Your task to perform on an android device: Add razer huntsman to the cart on target Image 0: 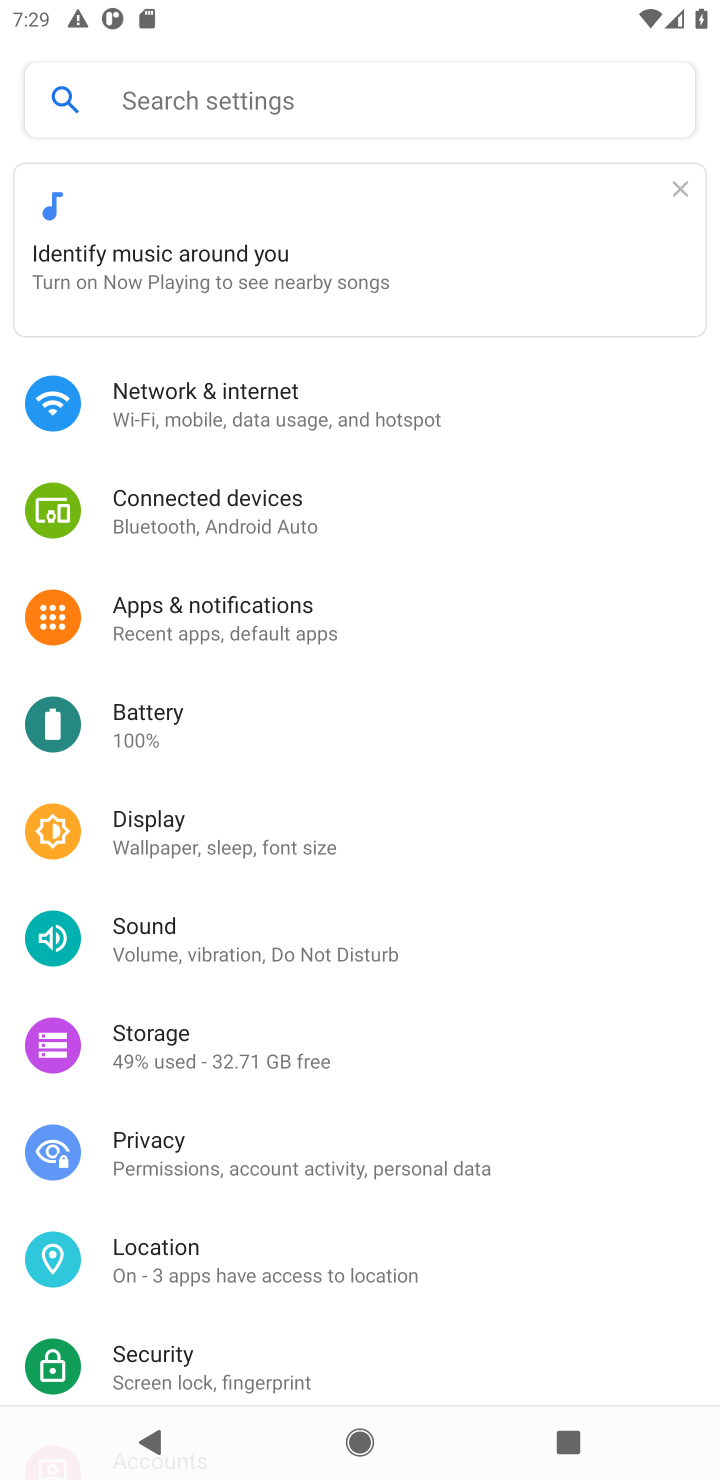
Step 0: press home button
Your task to perform on an android device: Add razer huntsman to the cart on target Image 1: 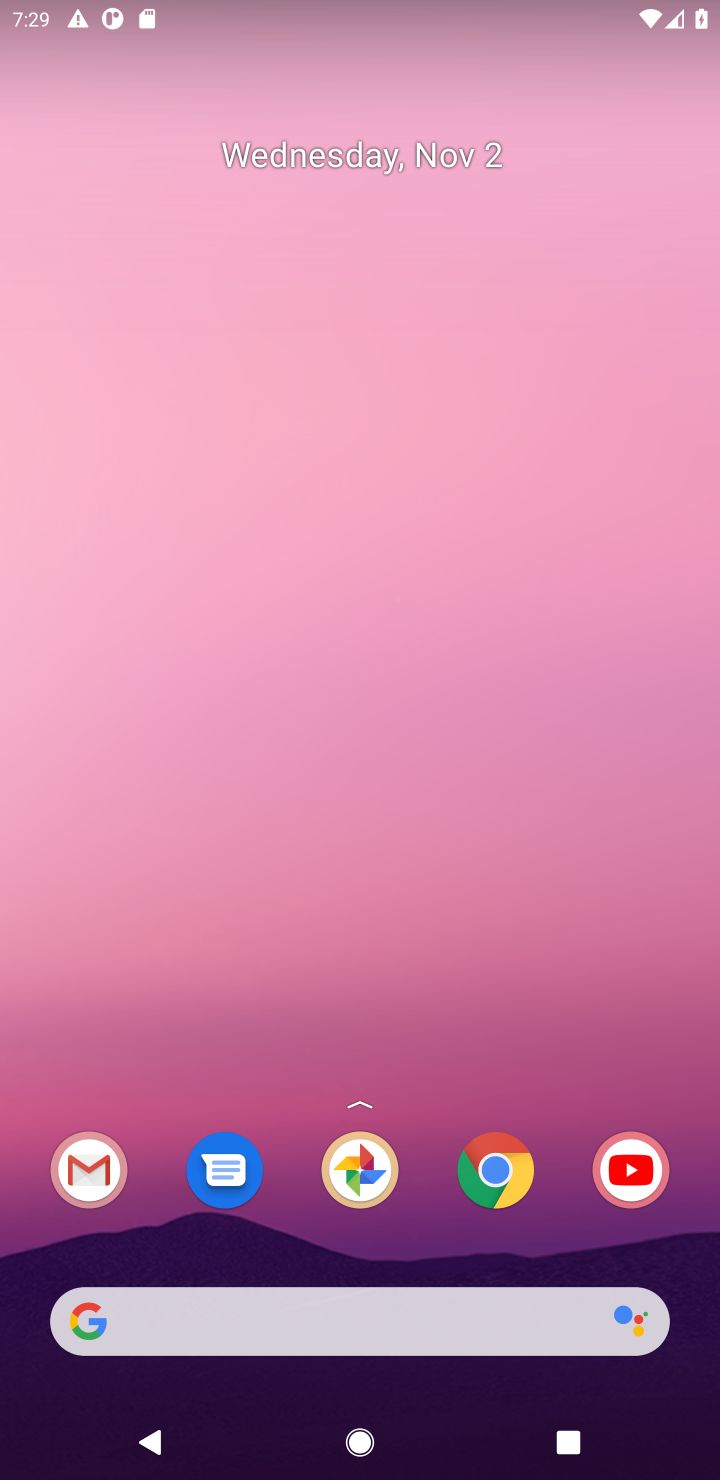
Step 1: click (511, 1194)
Your task to perform on an android device: Add razer huntsman to the cart on target Image 2: 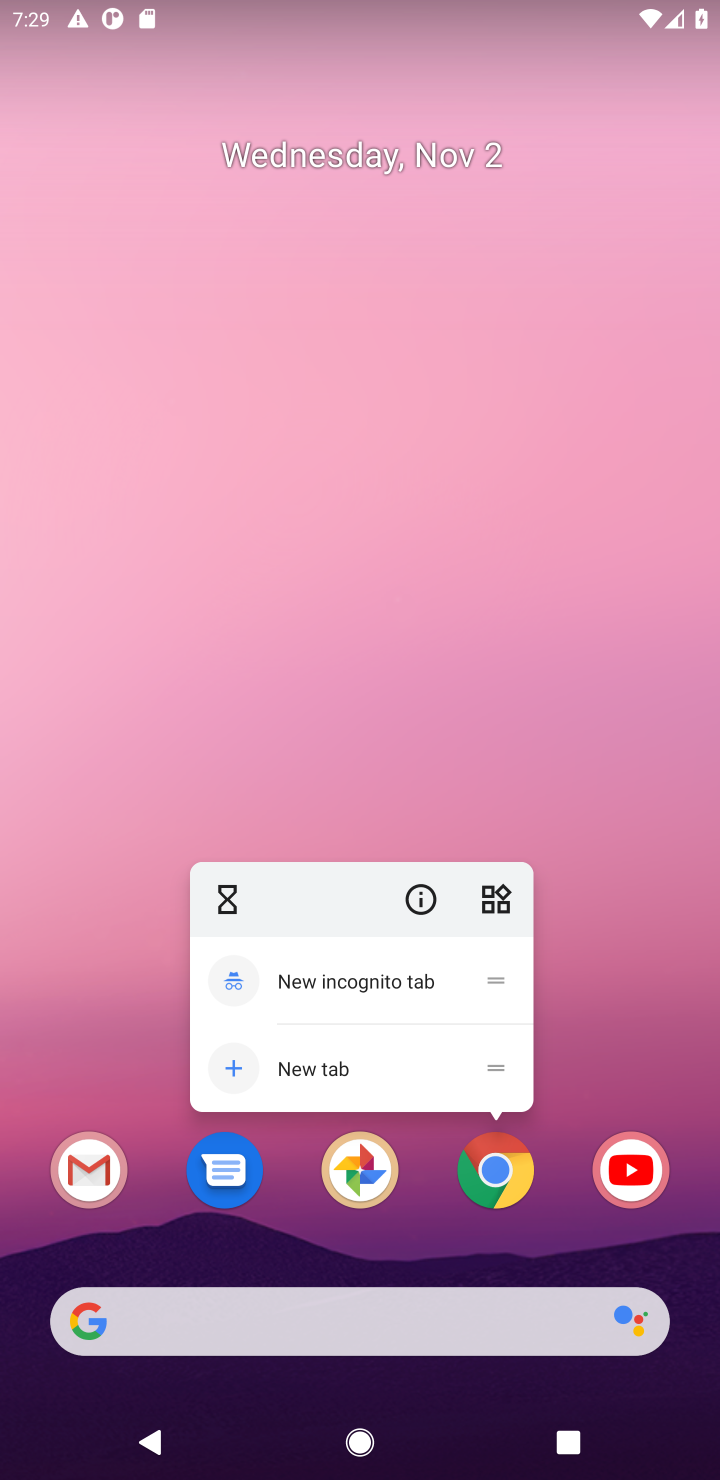
Step 2: click (522, 1186)
Your task to perform on an android device: Add razer huntsman to the cart on target Image 3: 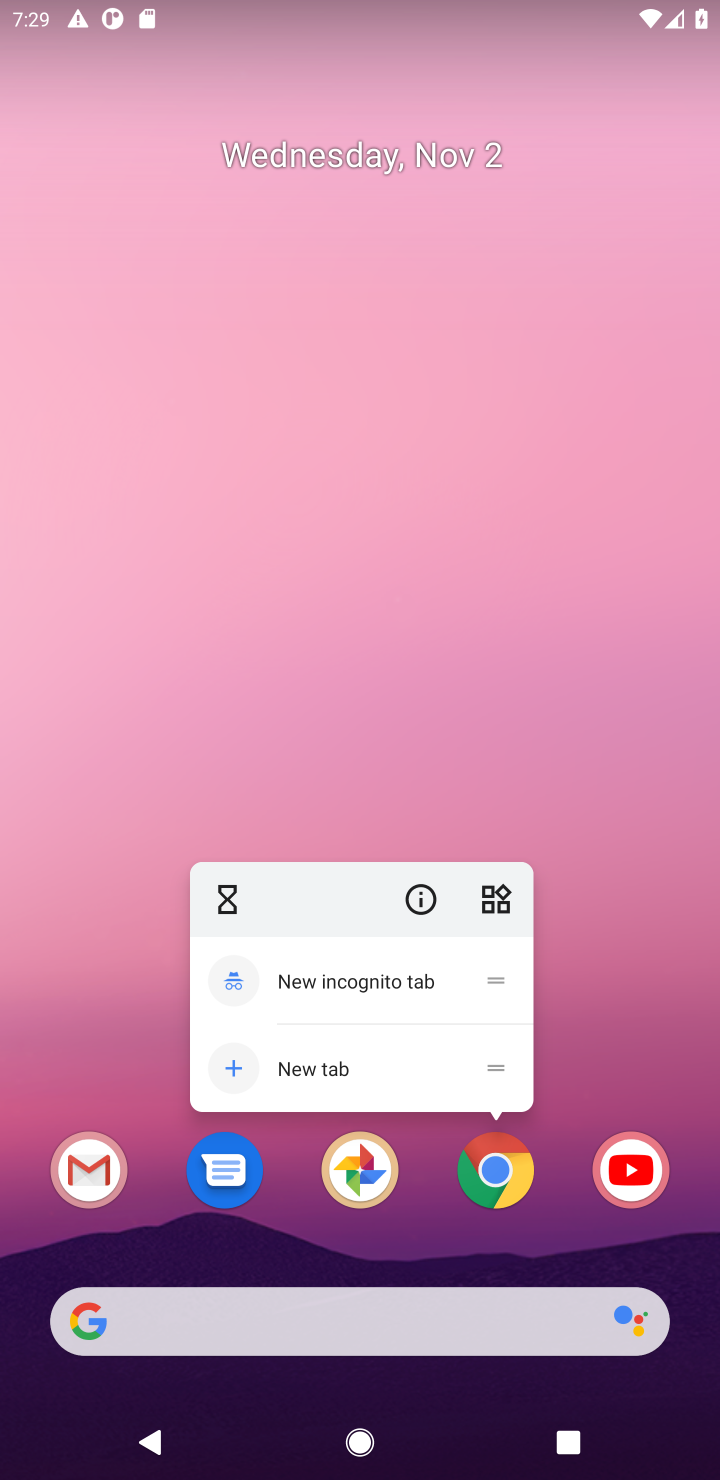
Step 3: click (492, 1163)
Your task to perform on an android device: Add razer huntsman to the cart on target Image 4: 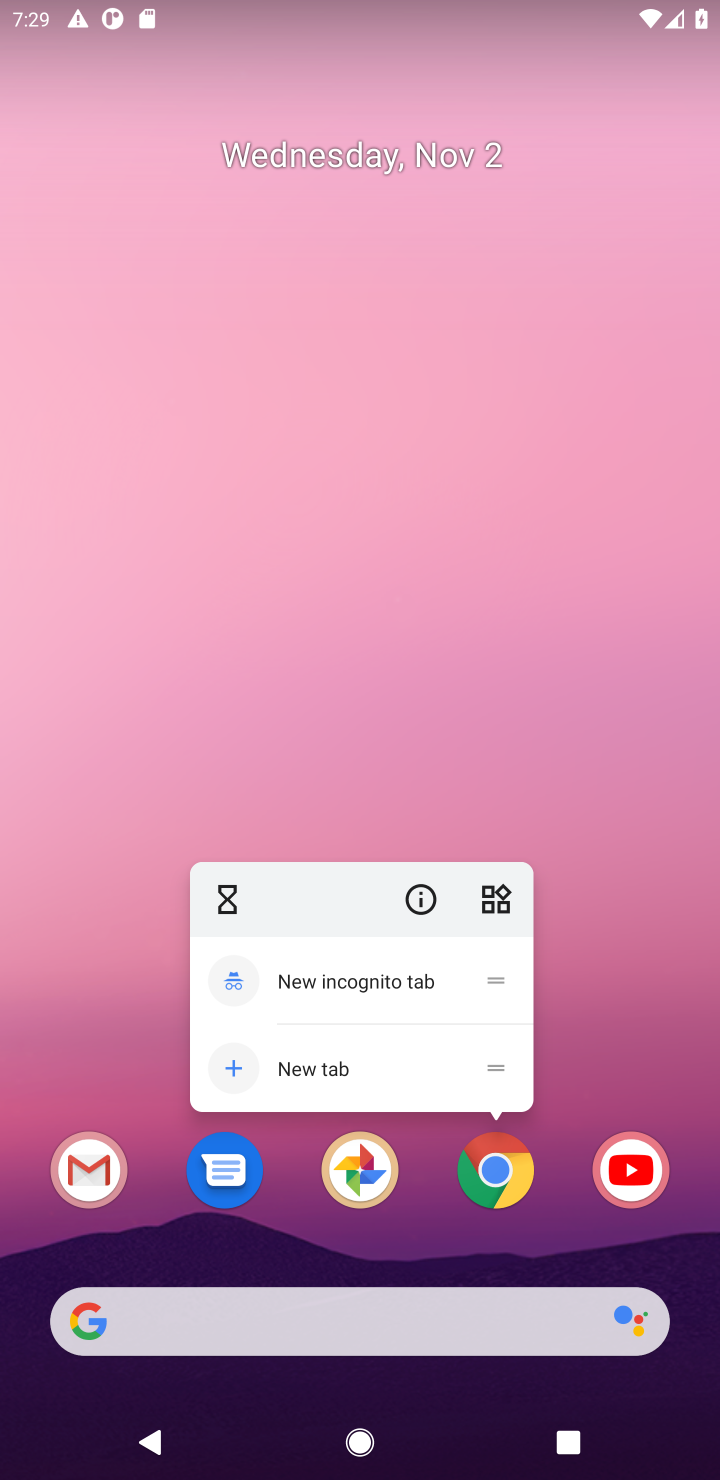
Step 4: click (476, 1198)
Your task to perform on an android device: Add razer huntsman to the cart on target Image 5: 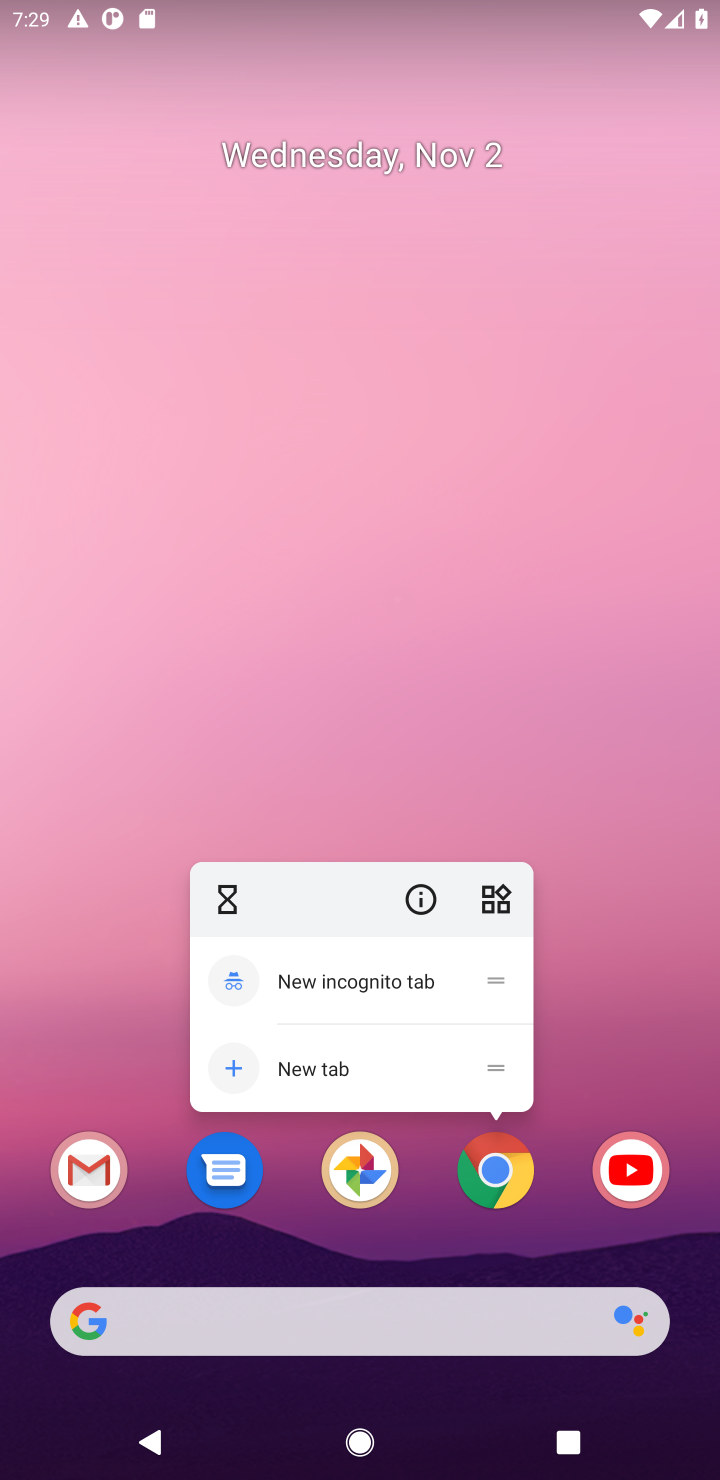
Step 5: click (528, 1176)
Your task to perform on an android device: Add razer huntsman to the cart on target Image 6: 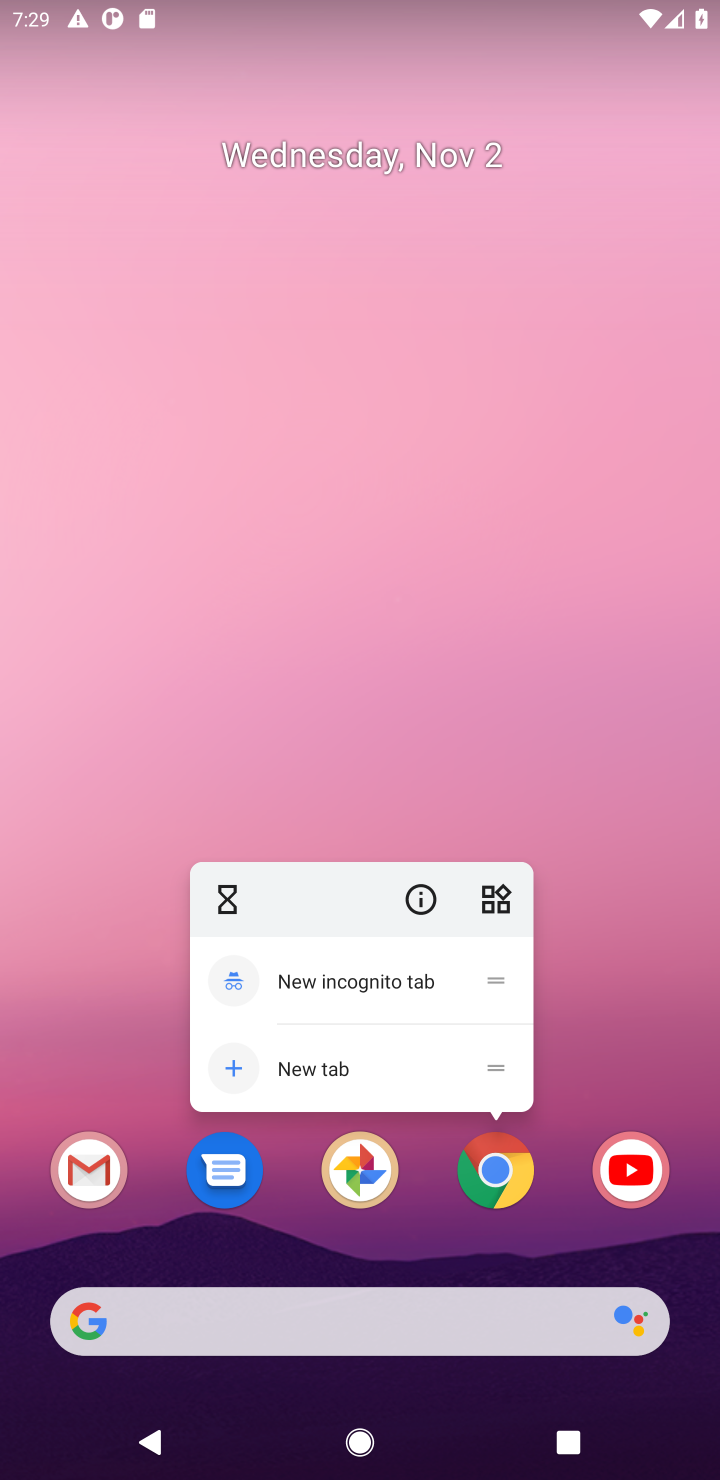
Step 6: click (495, 1206)
Your task to perform on an android device: Add razer huntsman to the cart on target Image 7: 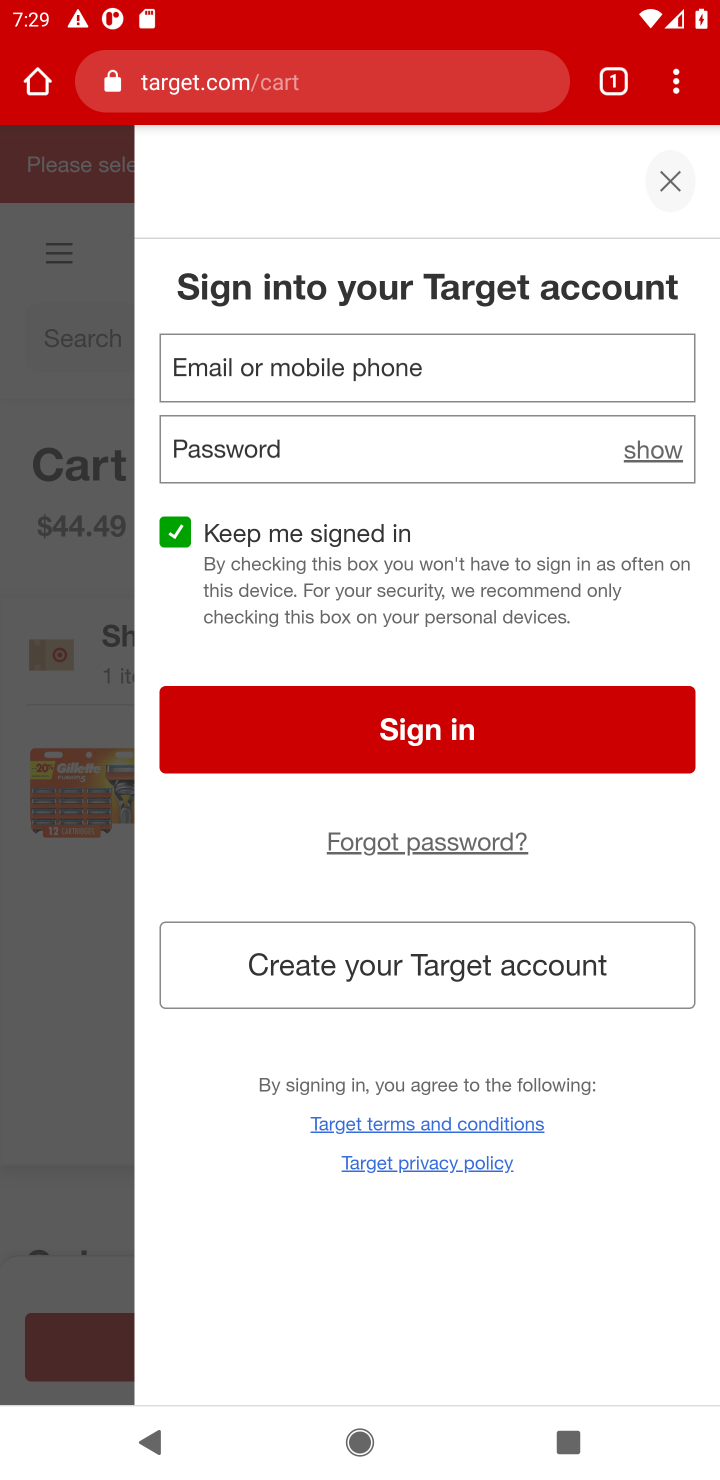
Step 7: click (316, 73)
Your task to perform on an android device: Add razer huntsman to the cart on target Image 8: 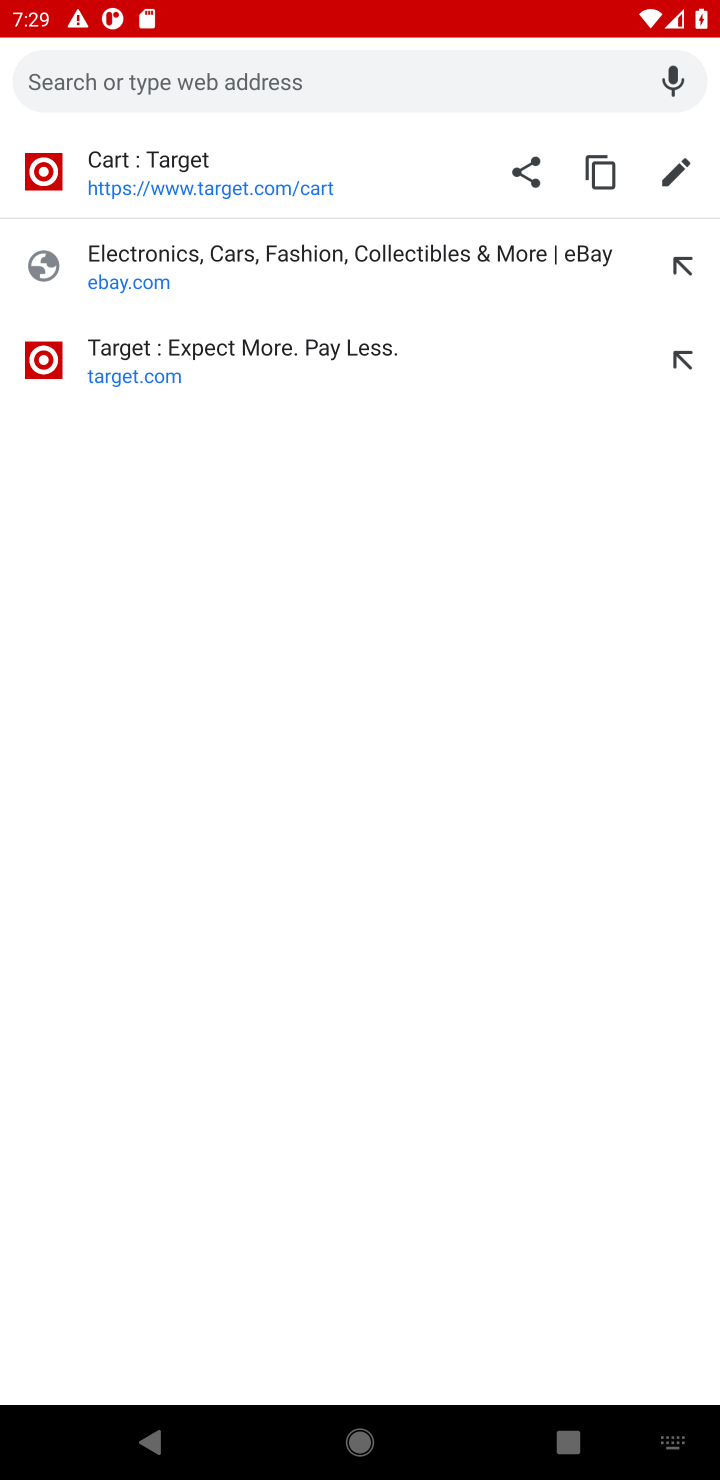
Step 8: type "target"
Your task to perform on an android device: Add razer huntsman to the cart on target Image 9: 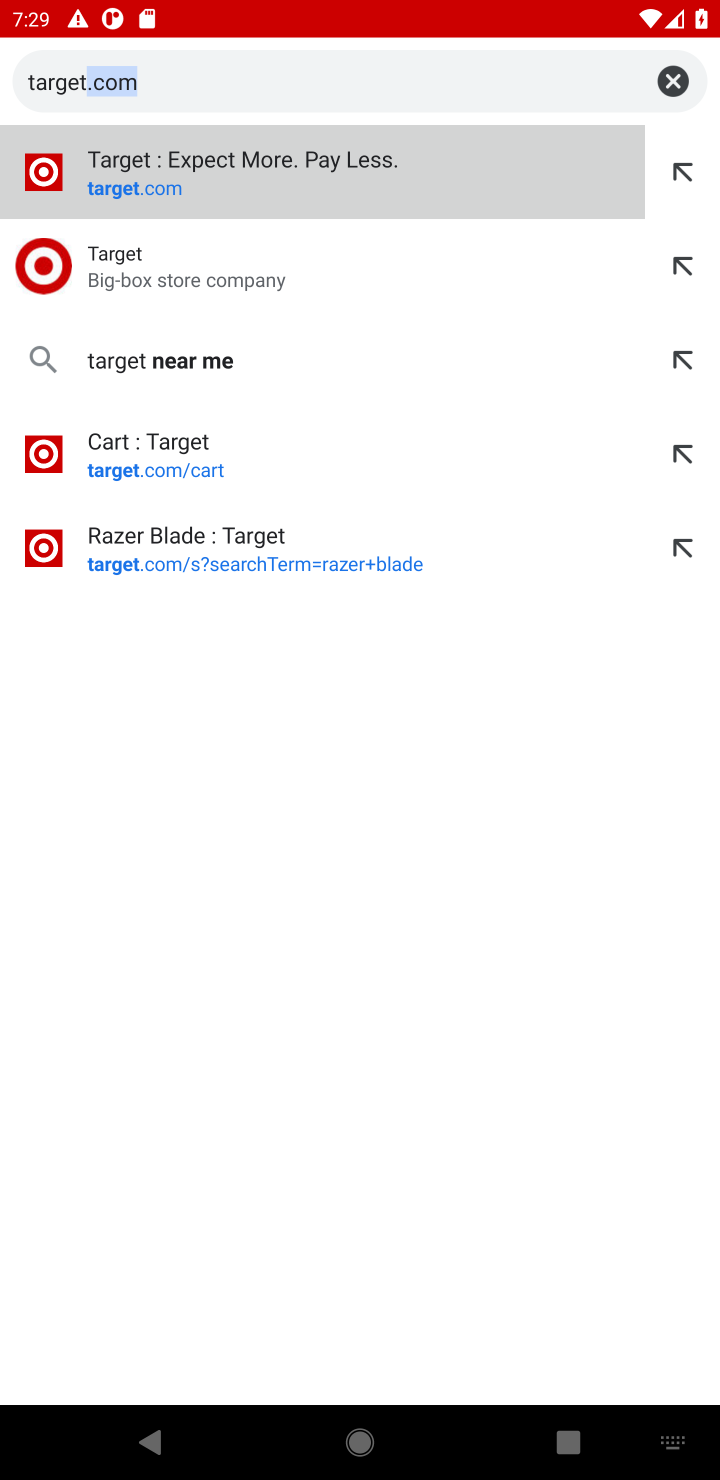
Step 9: type ""
Your task to perform on an android device: Add razer huntsman to the cart on target Image 10: 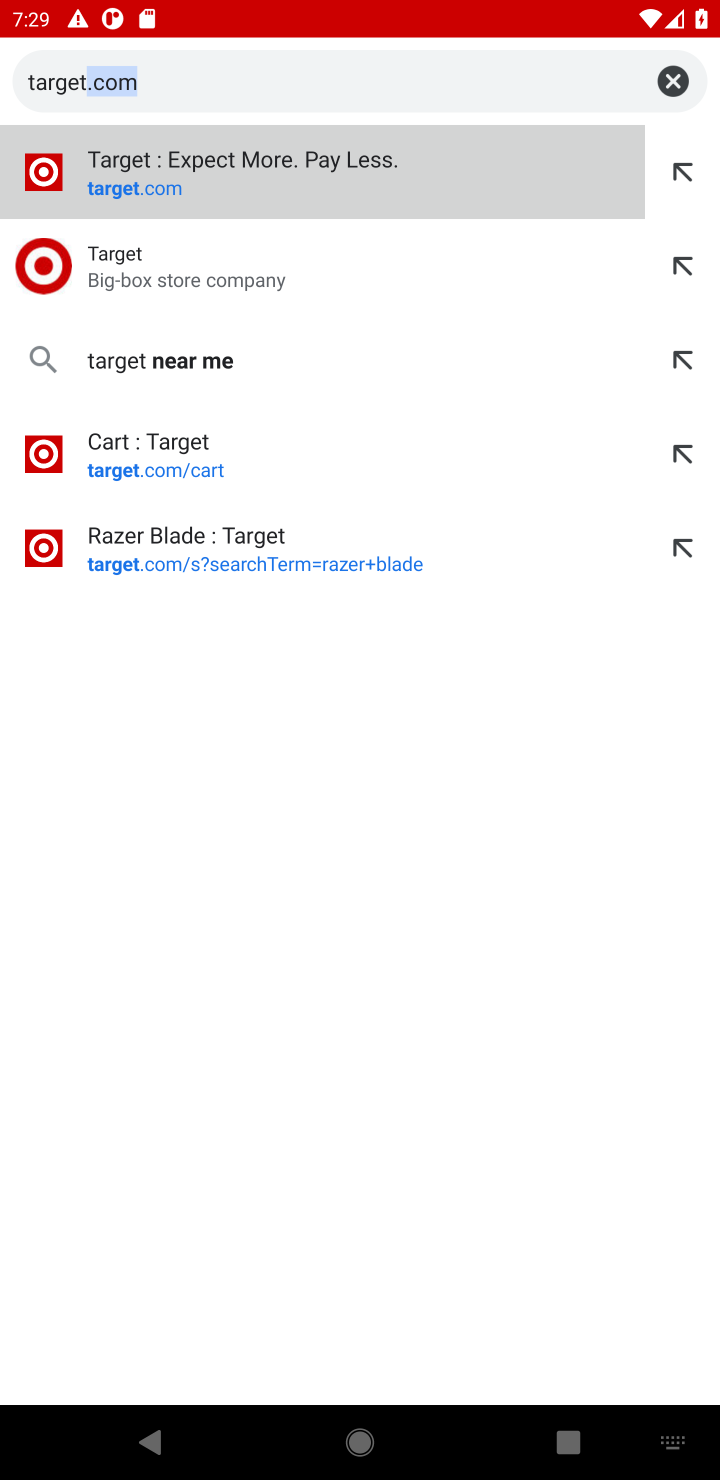
Step 10: press enter
Your task to perform on an android device: Add razer huntsman to the cart on target Image 11: 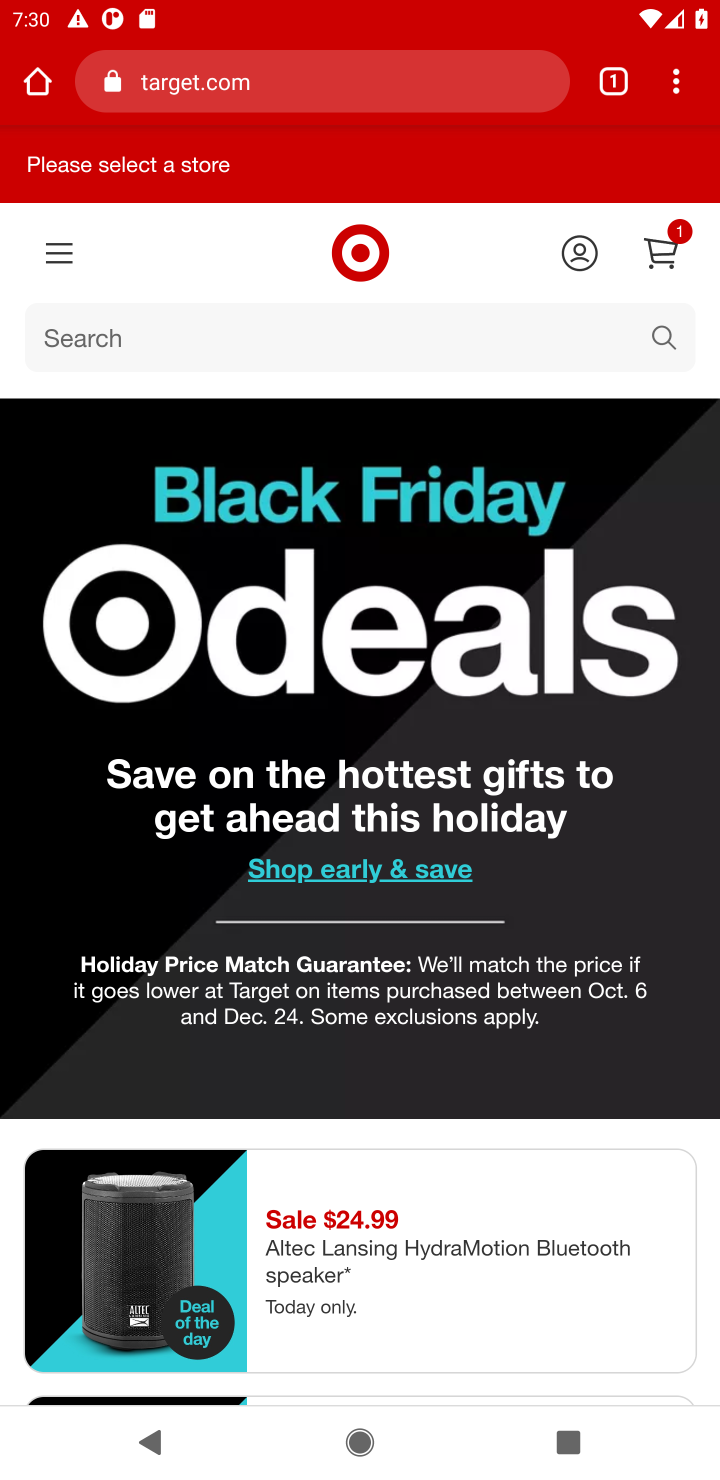
Step 11: click (337, 364)
Your task to perform on an android device: Add razer huntsman to the cart on target Image 12: 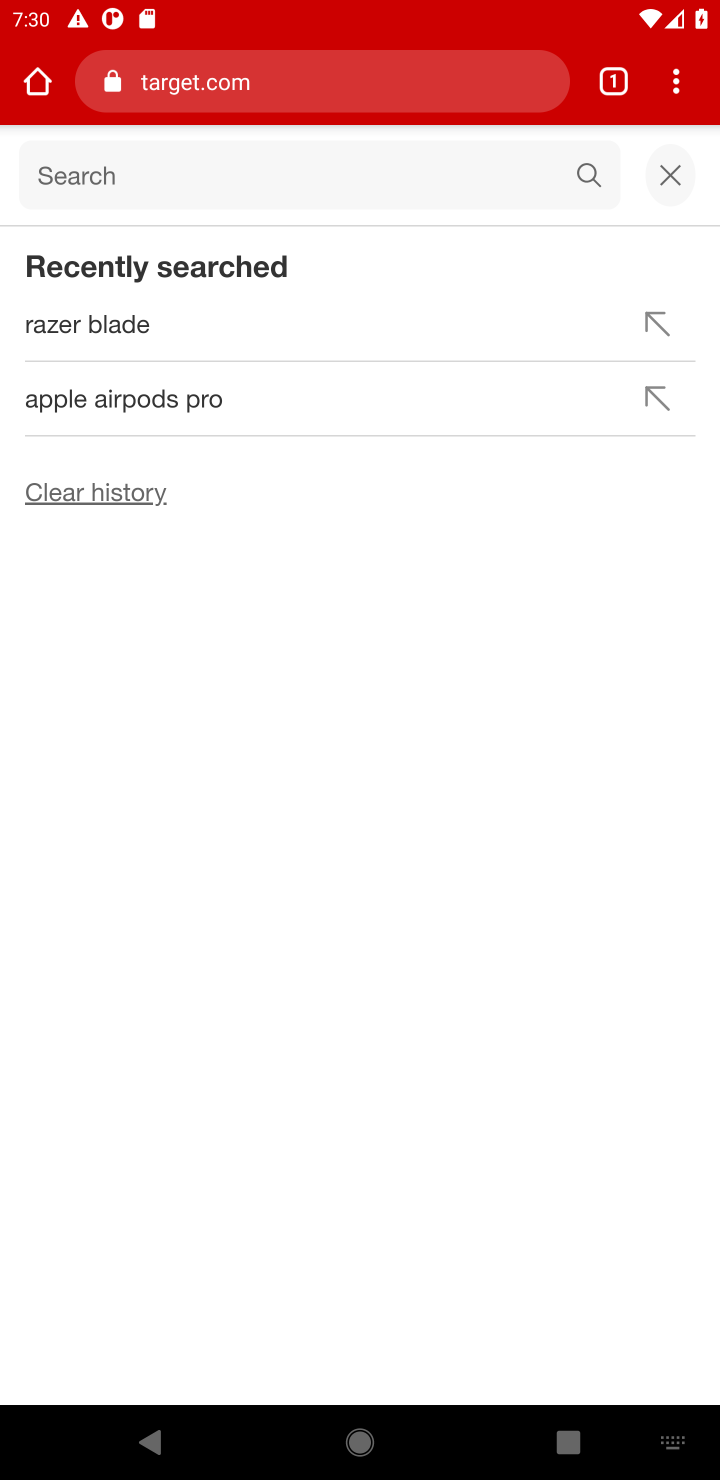
Step 12: type "razer huntsman"
Your task to perform on an android device: Add razer huntsman to the cart on target Image 13: 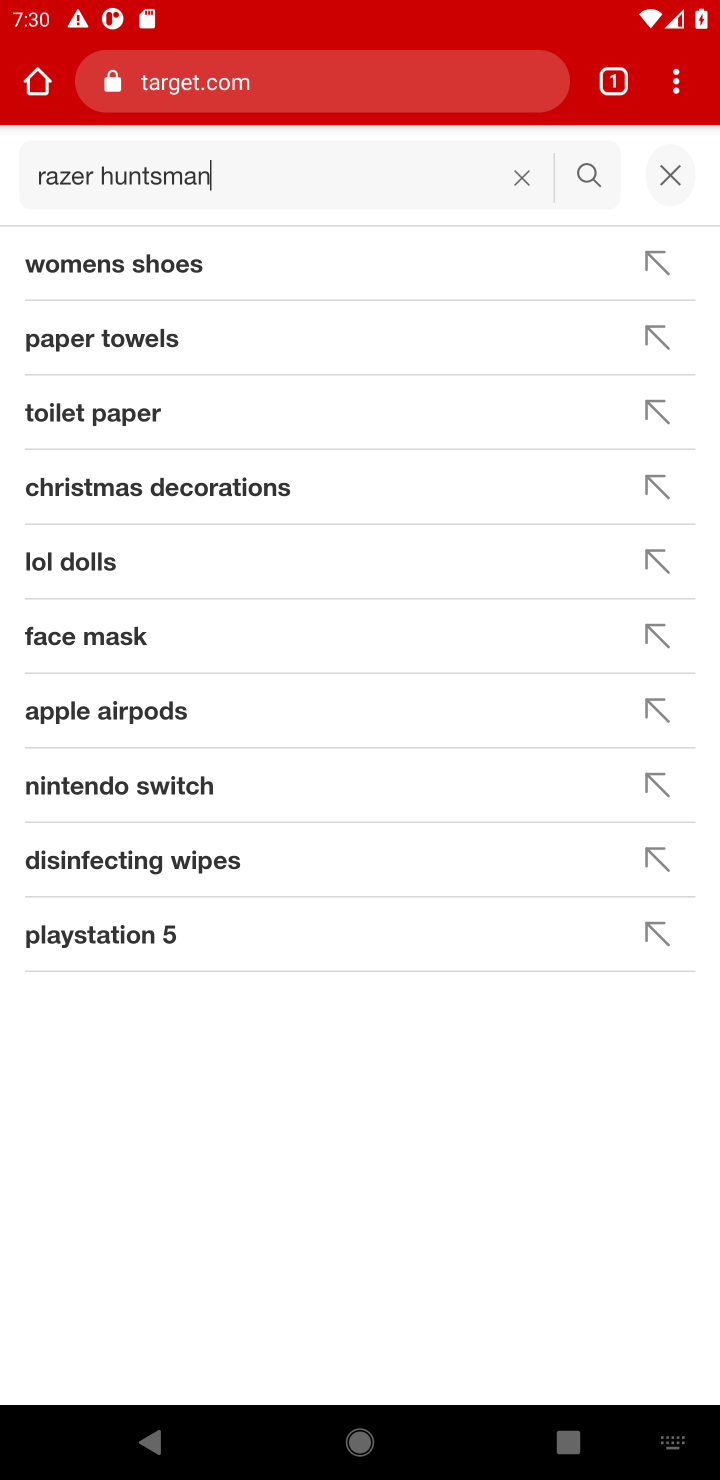
Step 13: type ""
Your task to perform on an android device: Add razer huntsman to the cart on target Image 14: 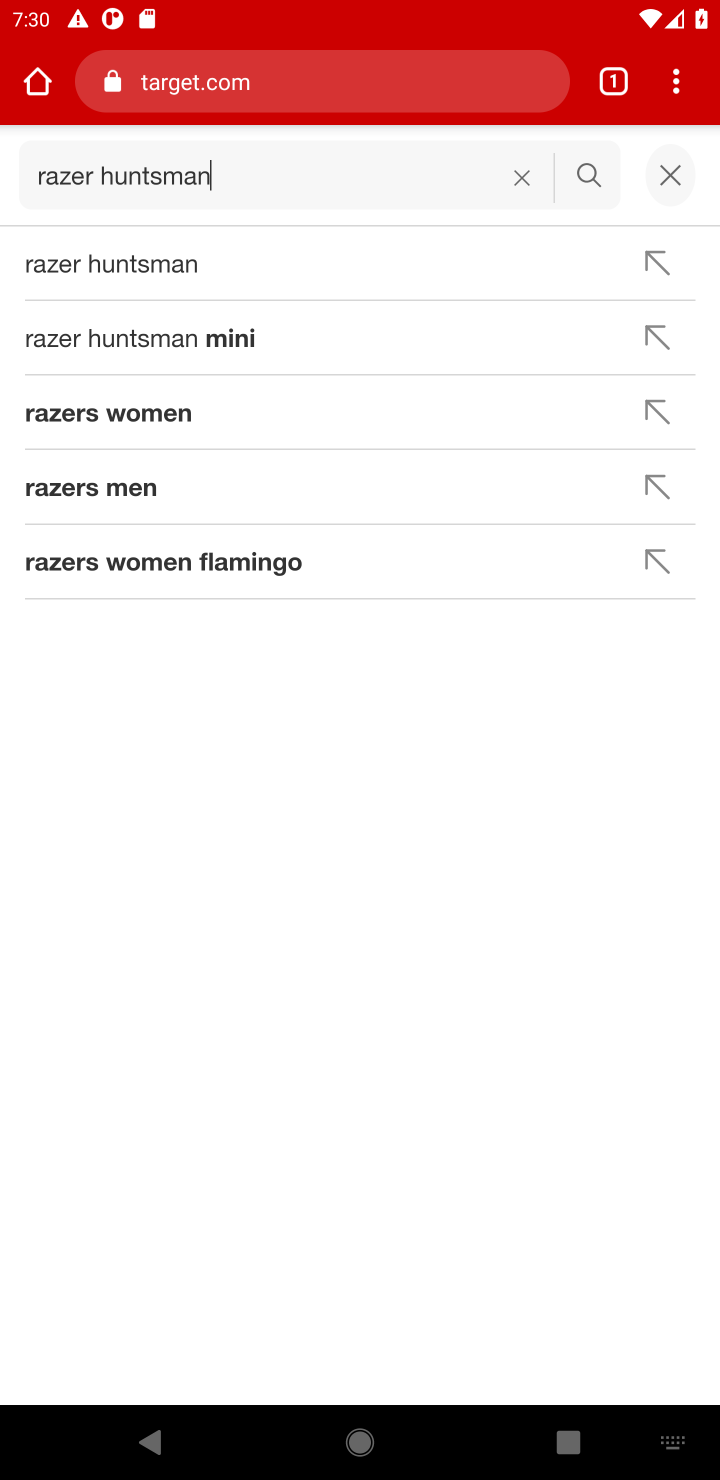
Step 14: press enter
Your task to perform on an android device: Add razer huntsman to the cart on target Image 15: 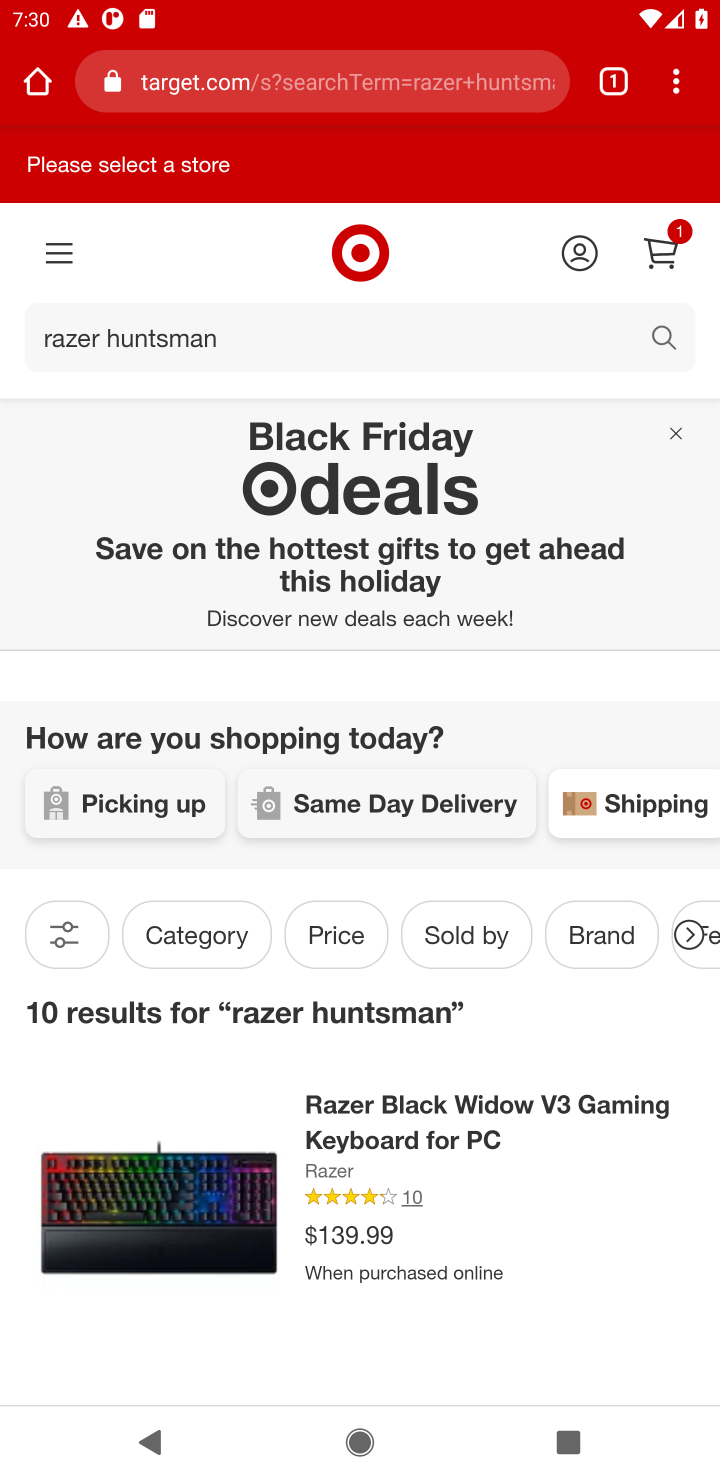
Step 15: drag from (487, 1126) to (537, 1428)
Your task to perform on an android device: Add razer huntsman to the cart on target Image 16: 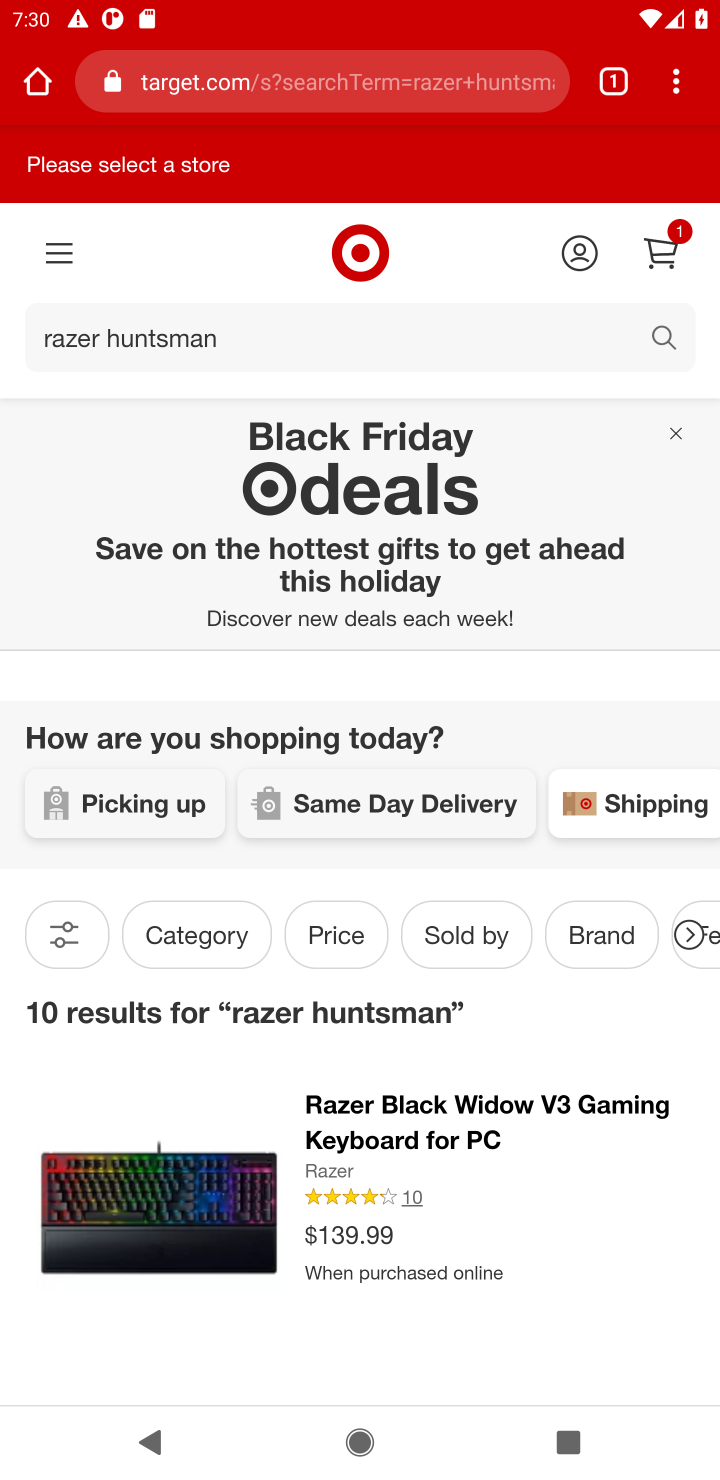
Step 16: drag from (439, 1206) to (415, 489)
Your task to perform on an android device: Add razer huntsman to the cart on target Image 17: 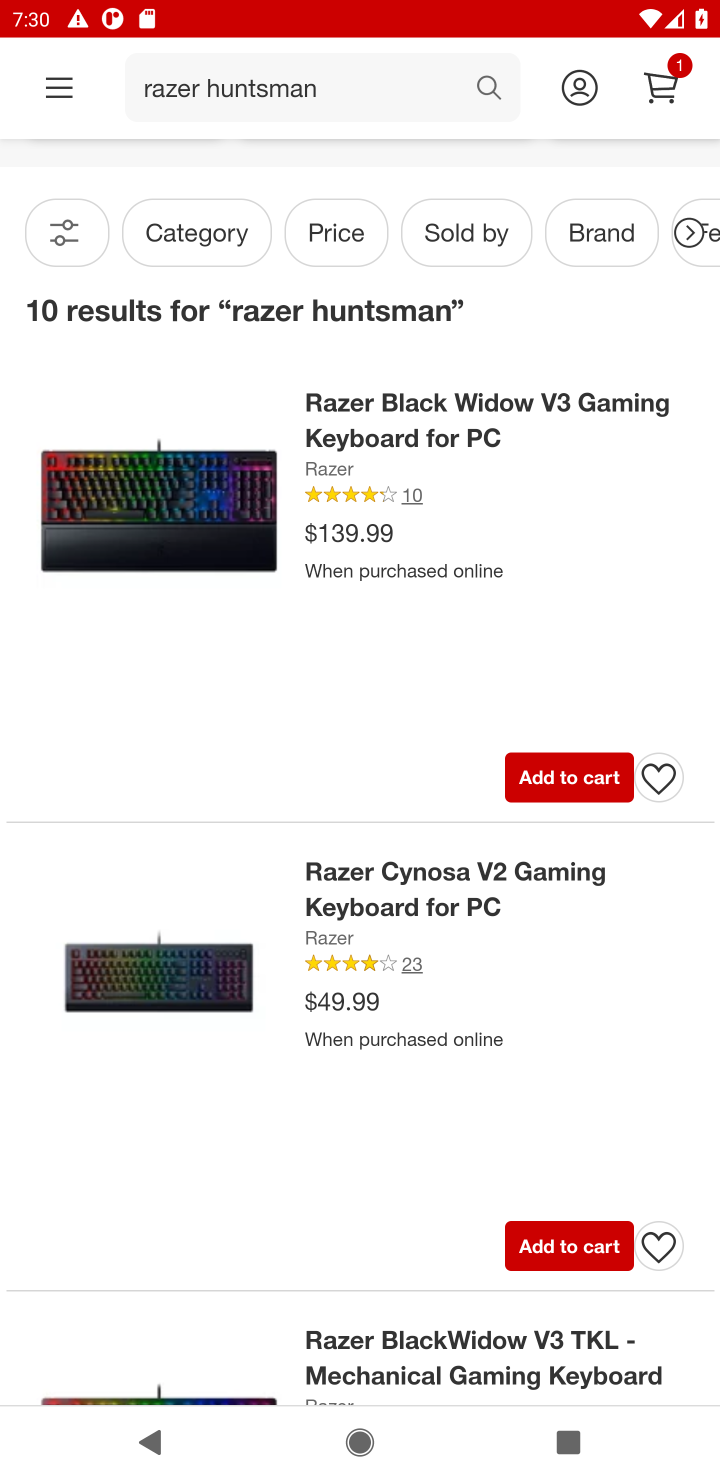
Step 17: drag from (362, 1176) to (387, 843)
Your task to perform on an android device: Add razer huntsman to the cart on target Image 18: 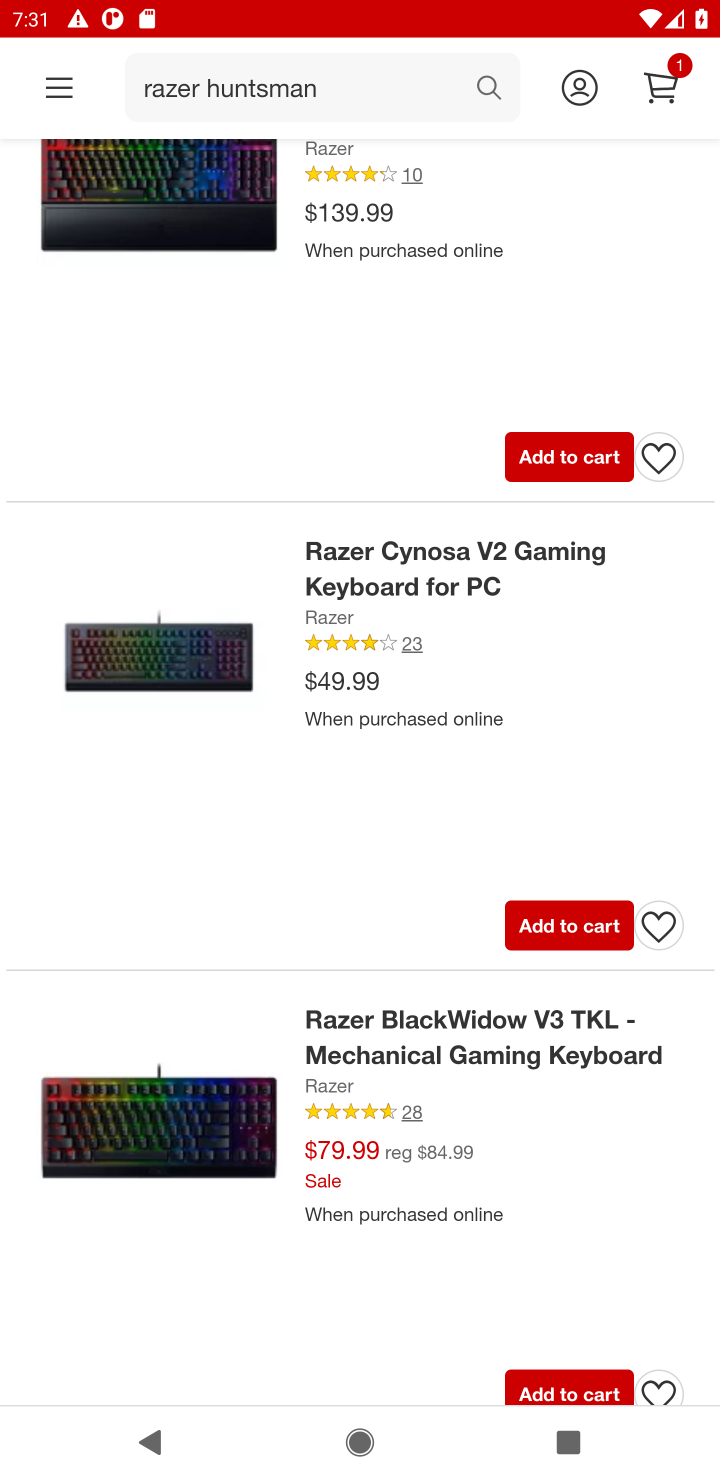
Step 18: press home button
Your task to perform on an android device: Add razer huntsman to the cart on target Image 19: 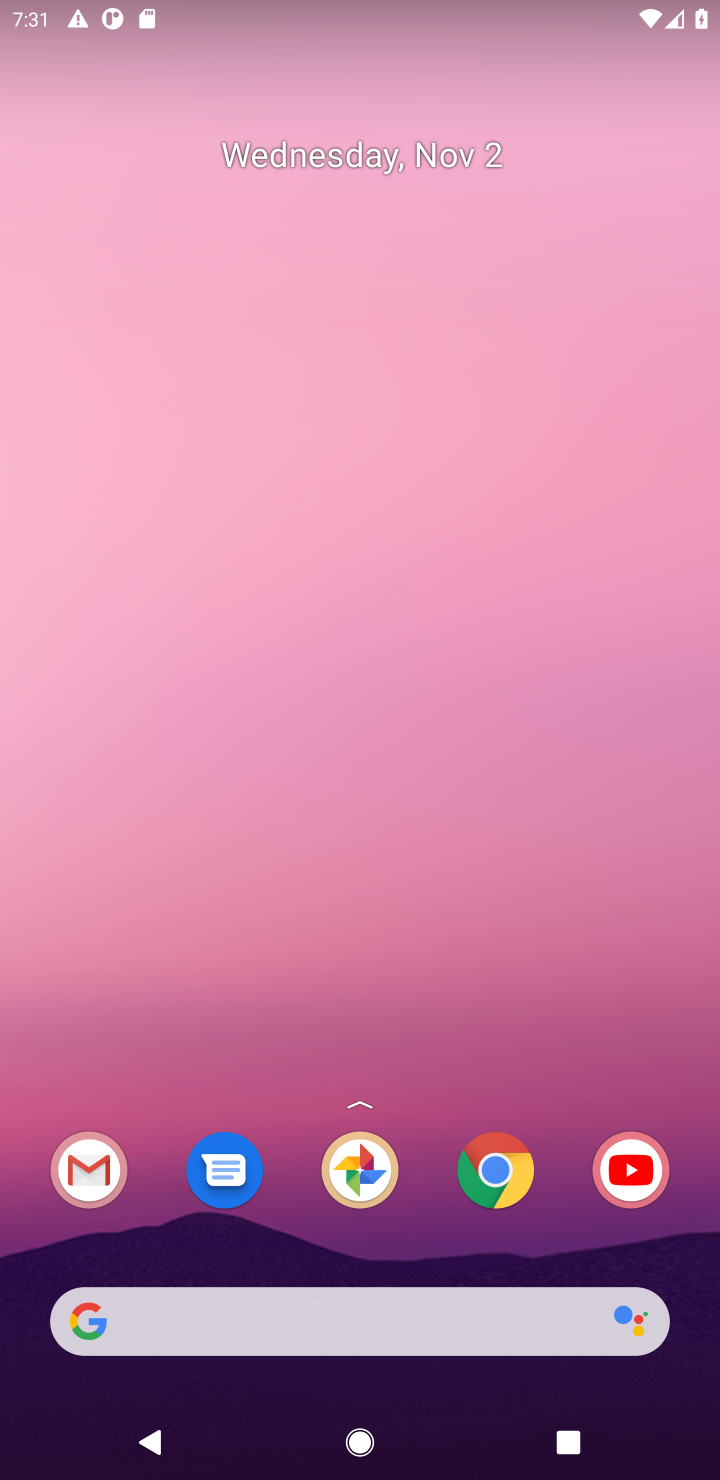
Step 19: click (531, 1185)
Your task to perform on an android device: Add razer huntsman to the cart on target Image 20: 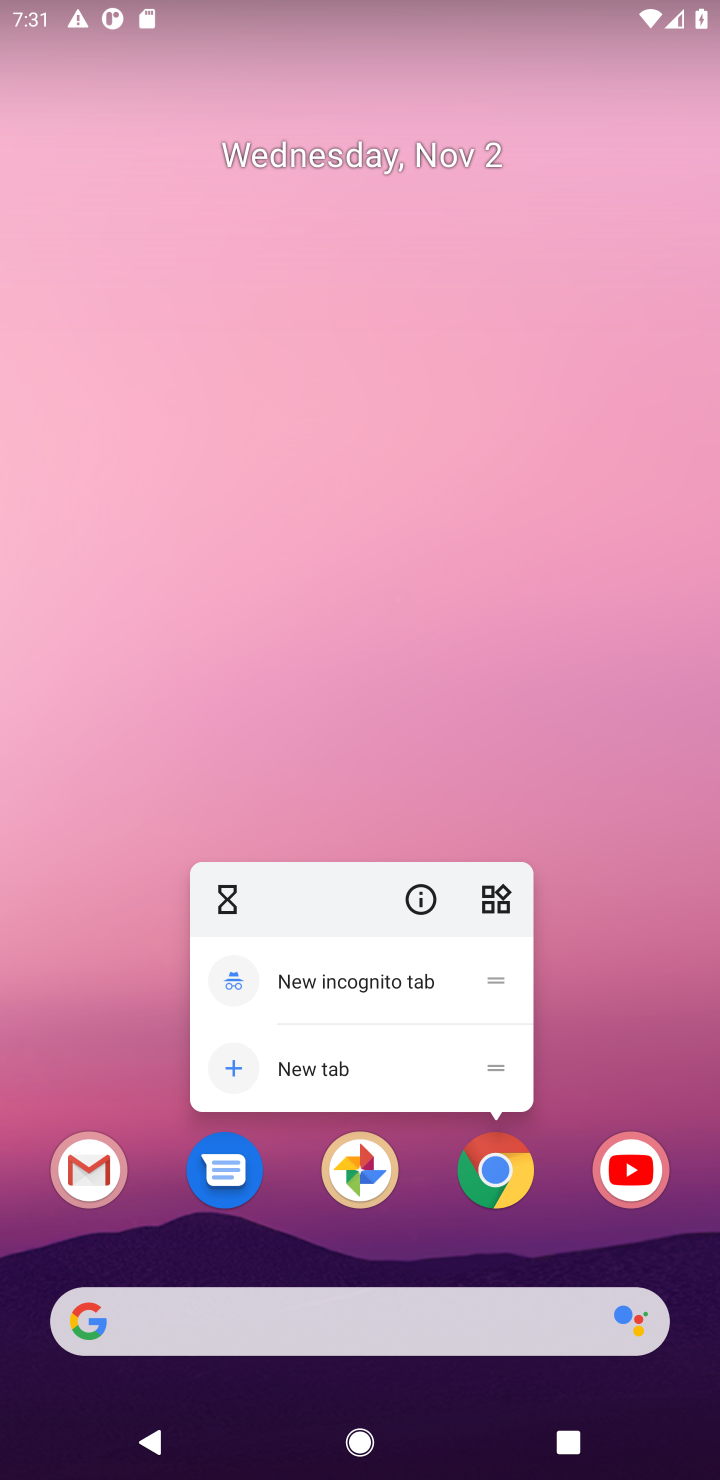
Step 20: click (509, 1163)
Your task to perform on an android device: Add razer huntsman to the cart on target Image 21: 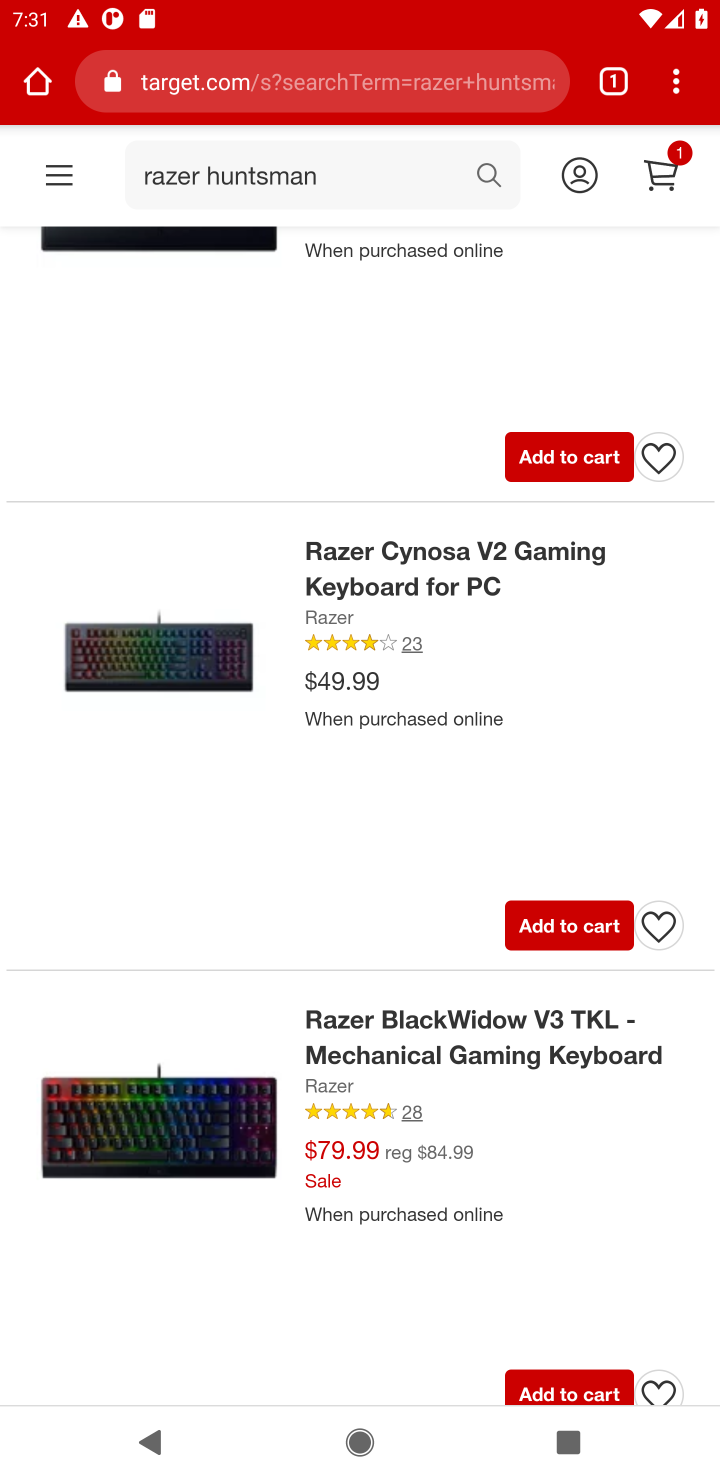
Step 21: click (292, 94)
Your task to perform on an android device: Add razer huntsman to the cart on target Image 22: 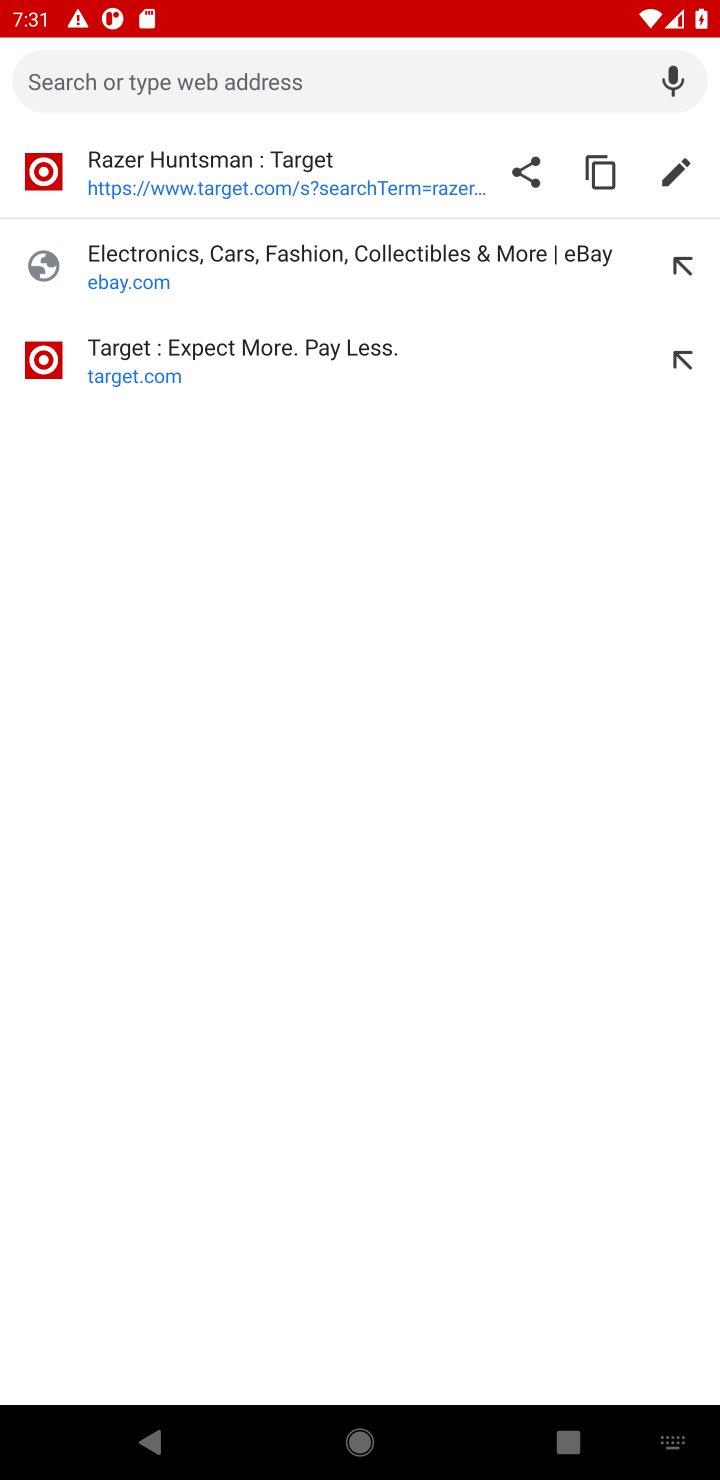
Step 22: type "target"
Your task to perform on an android device: Add razer huntsman to the cart on target Image 23: 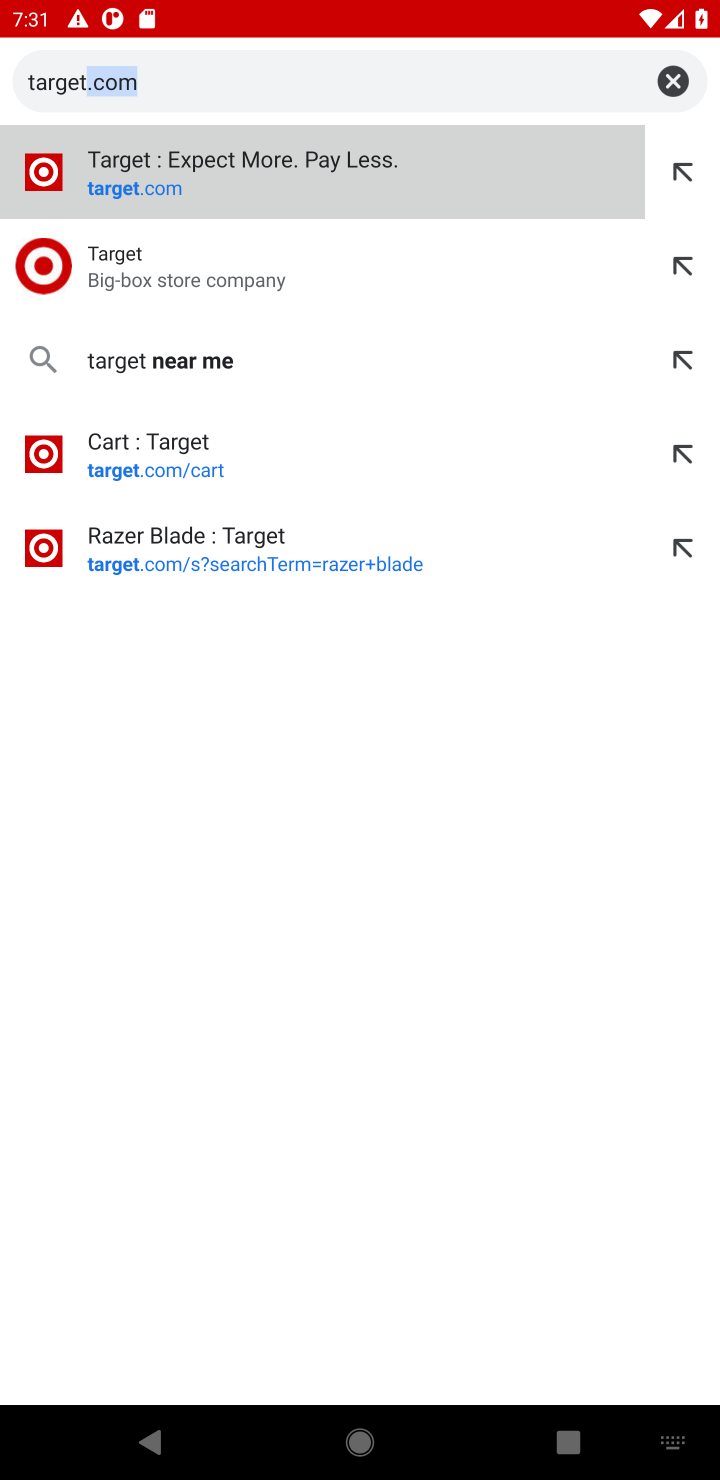
Step 23: type ""
Your task to perform on an android device: Add razer huntsman to the cart on target Image 24: 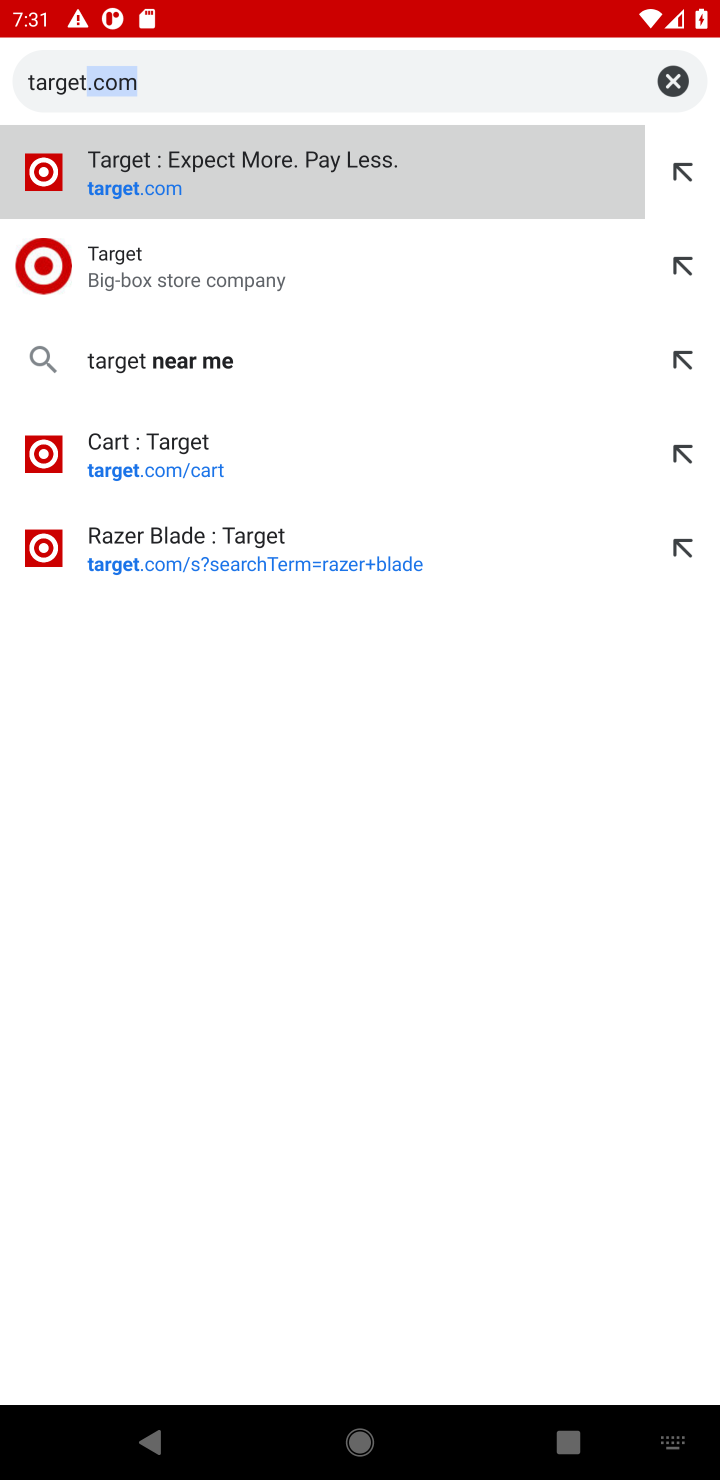
Step 24: press enter
Your task to perform on an android device: Add razer huntsman to the cart on target Image 25: 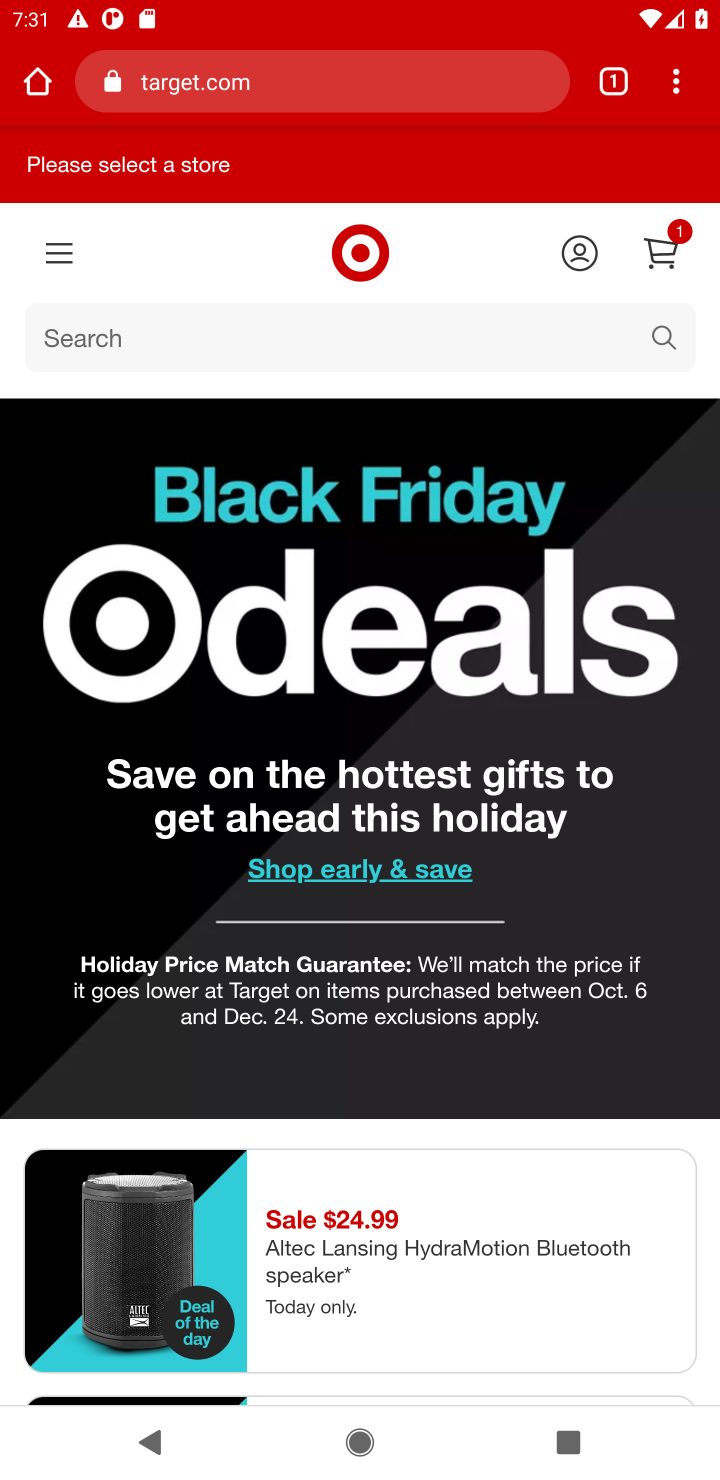
Step 25: click (321, 354)
Your task to perform on an android device: Add razer huntsman to the cart on target Image 26: 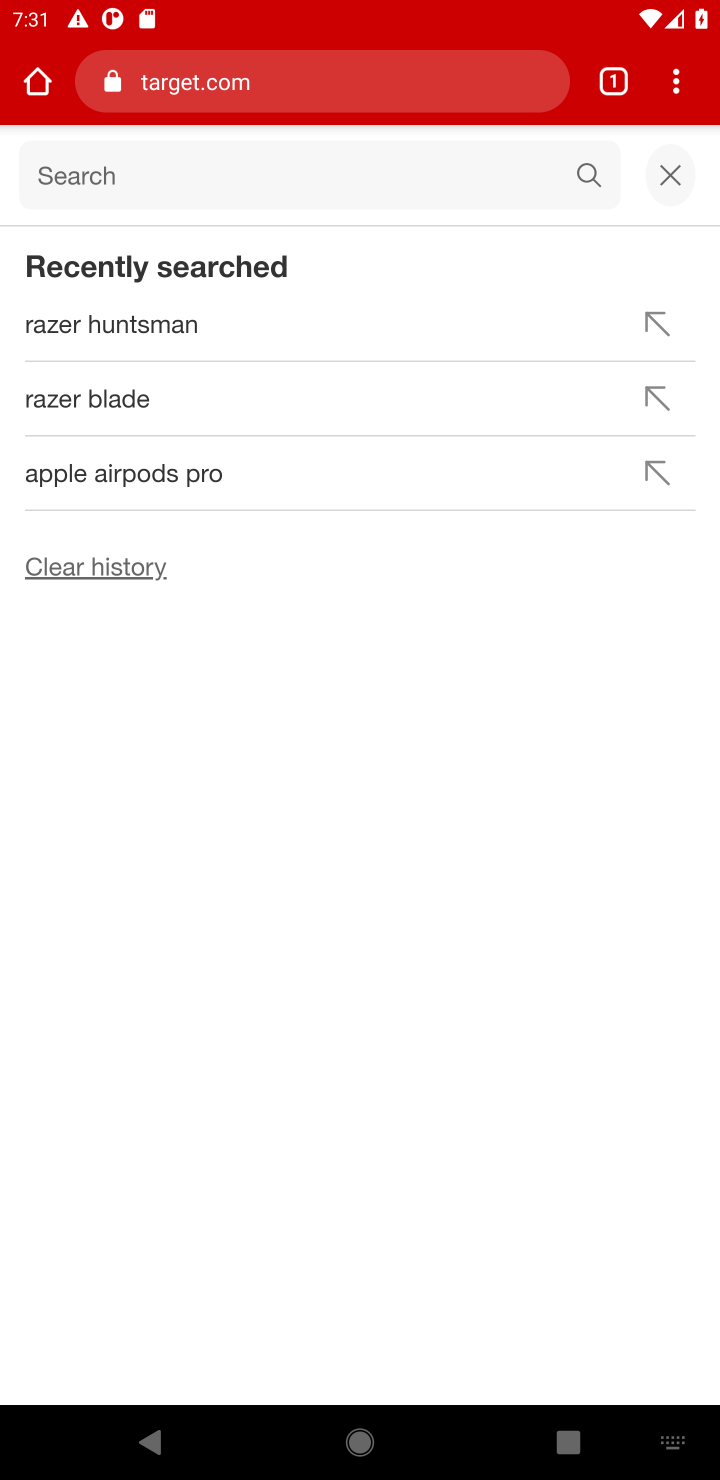
Step 26: type "razer huntsman"
Your task to perform on an android device: Add razer huntsman to the cart on target Image 27: 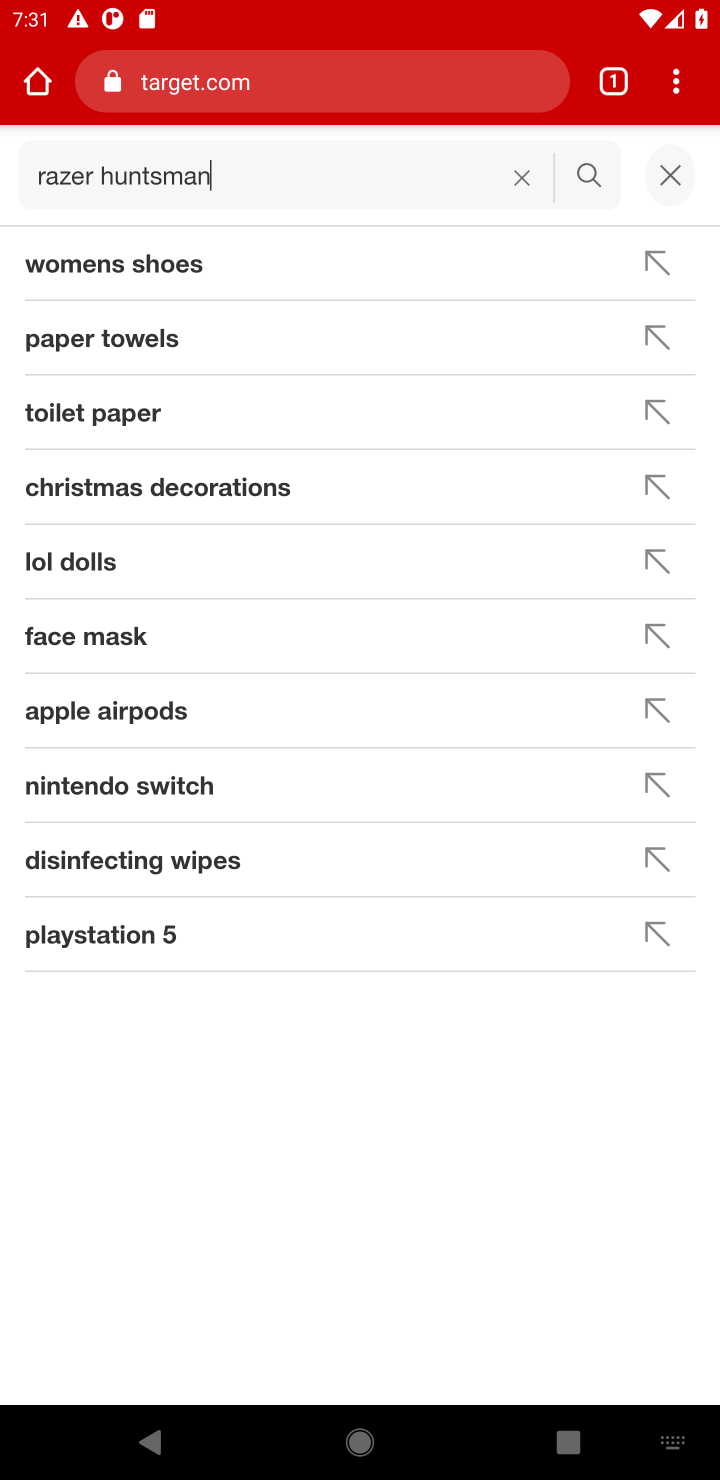
Step 27: type ""
Your task to perform on an android device: Add razer huntsman to the cart on target Image 28: 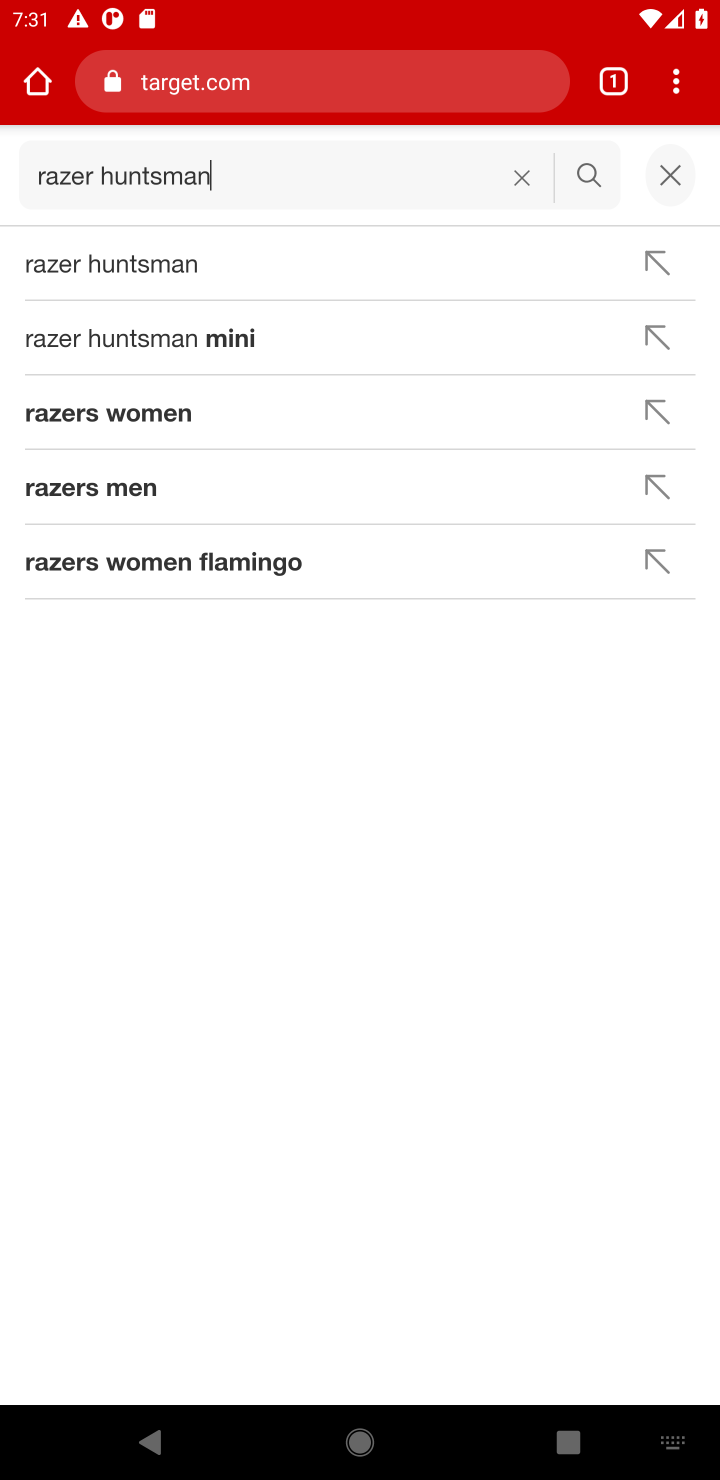
Step 28: press enter
Your task to perform on an android device: Add razer huntsman to the cart on target Image 29: 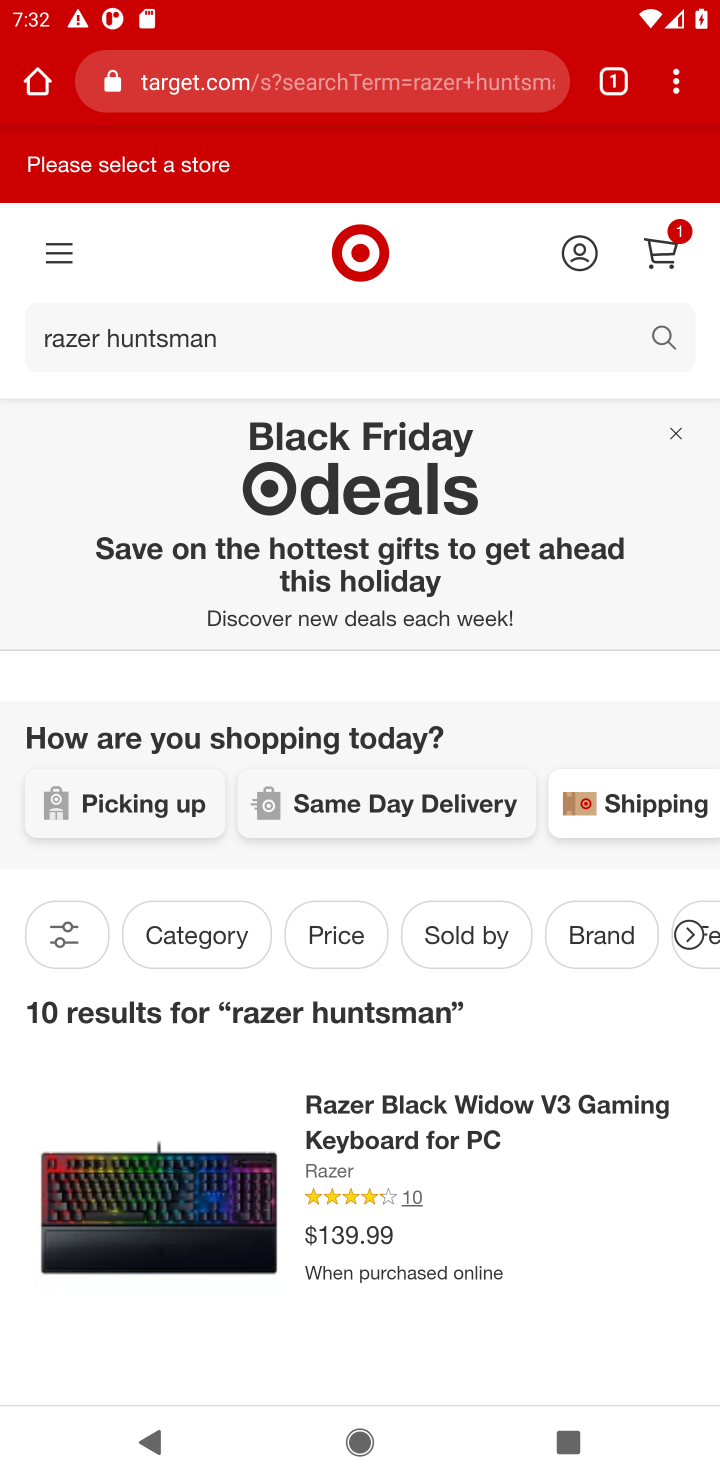
Step 29: task complete